Your task to perform on an android device: turn off improve location accuracy Image 0: 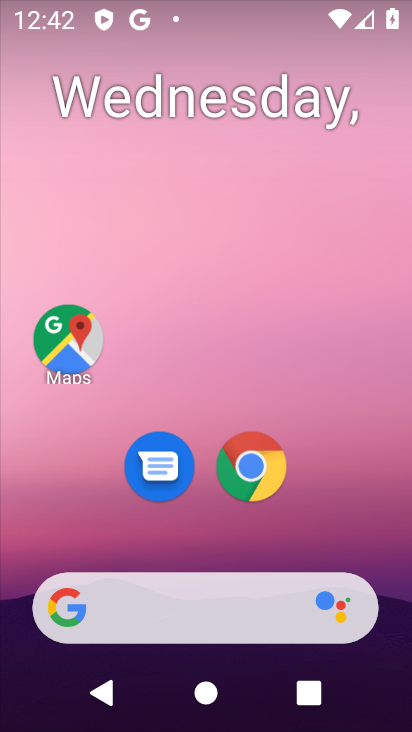
Step 0: drag from (333, 495) to (292, 121)
Your task to perform on an android device: turn off improve location accuracy Image 1: 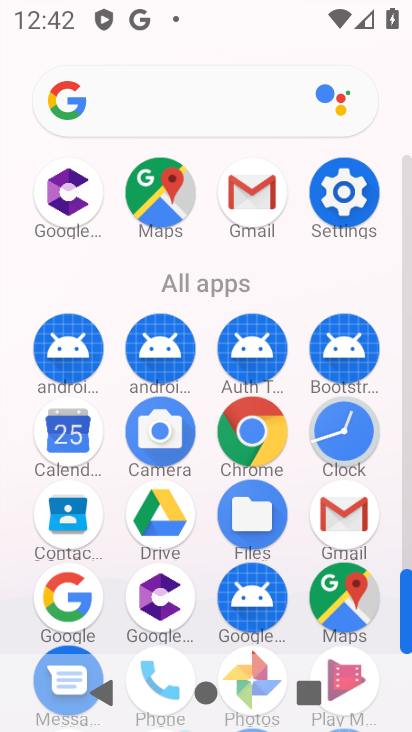
Step 1: click (370, 187)
Your task to perform on an android device: turn off improve location accuracy Image 2: 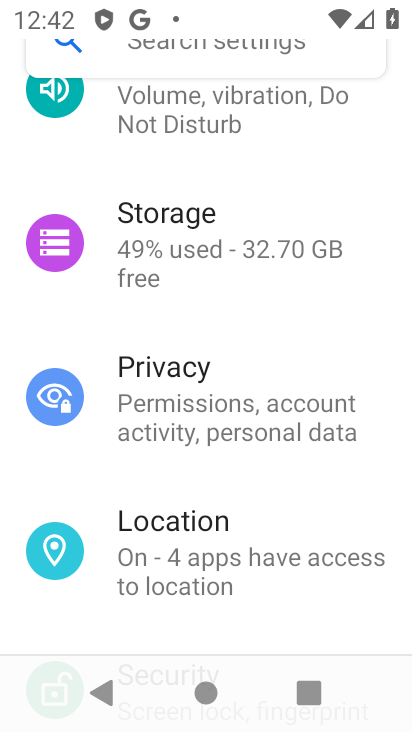
Step 2: drag from (224, 210) to (250, 478)
Your task to perform on an android device: turn off improve location accuracy Image 3: 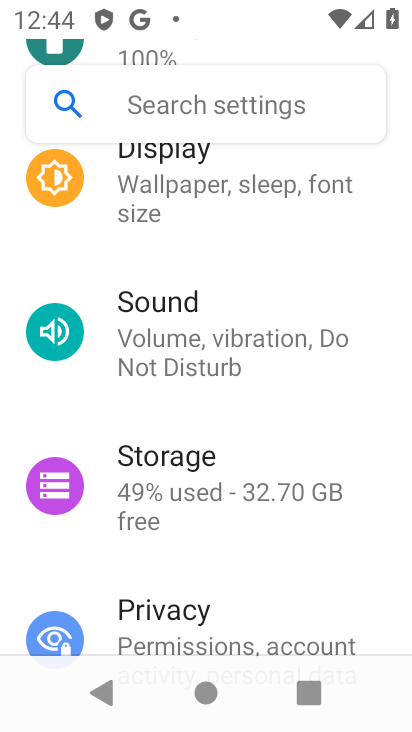
Step 3: drag from (207, 576) to (191, 220)
Your task to perform on an android device: turn off improve location accuracy Image 4: 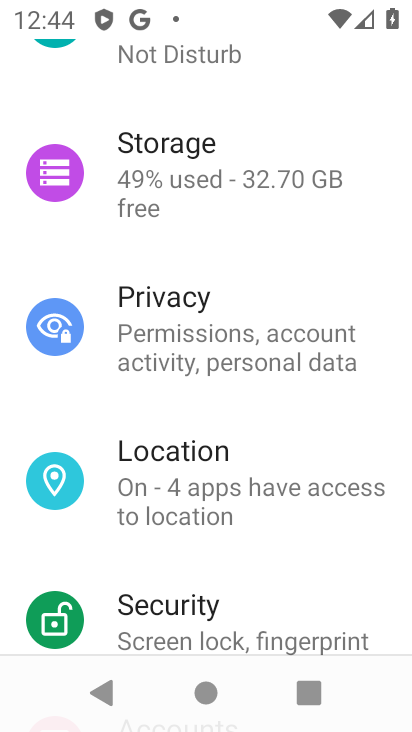
Step 4: click (209, 460)
Your task to perform on an android device: turn off improve location accuracy Image 5: 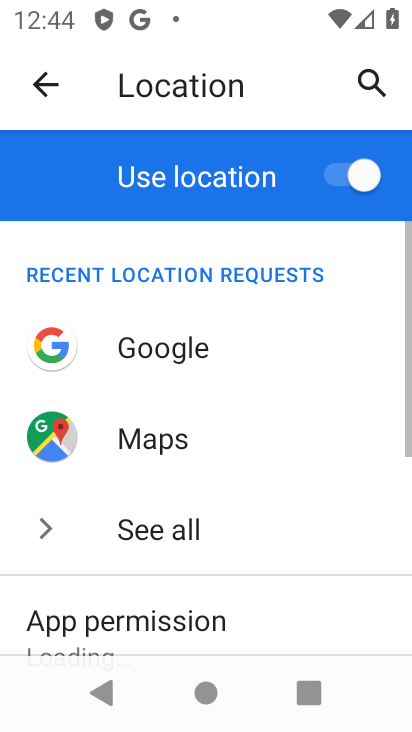
Step 5: drag from (237, 584) to (213, 213)
Your task to perform on an android device: turn off improve location accuracy Image 6: 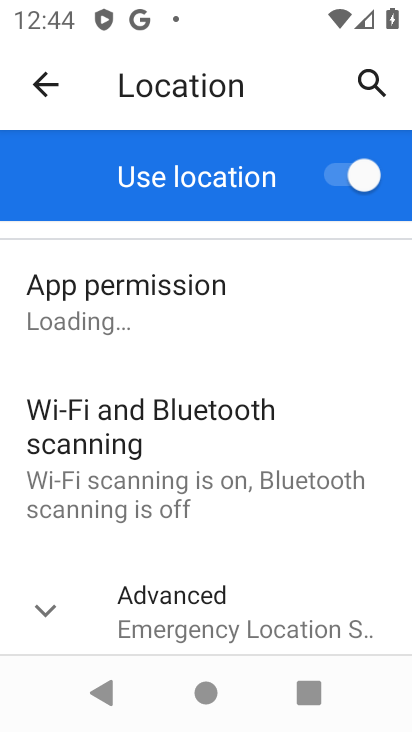
Step 6: click (195, 624)
Your task to perform on an android device: turn off improve location accuracy Image 7: 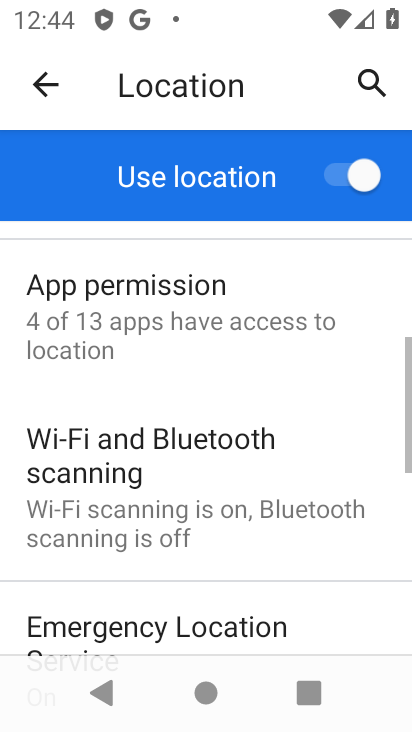
Step 7: drag from (202, 617) to (207, 223)
Your task to perform on an android device: turn off improve location accuracy Image 8: 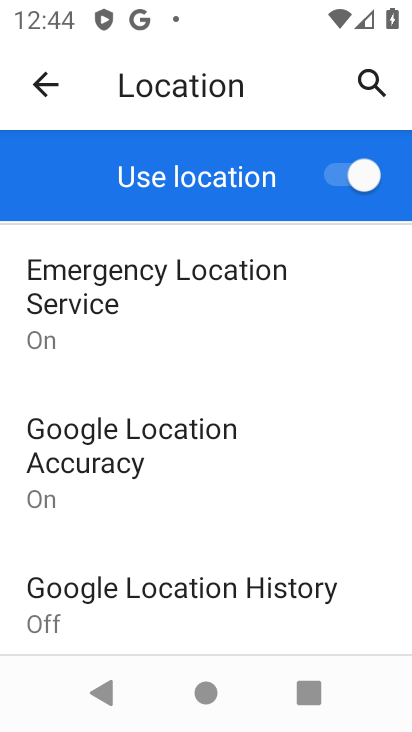
Step 8: click (216, 481)
Your task to perform on an android device: turn off improve location accuracy Image 9: 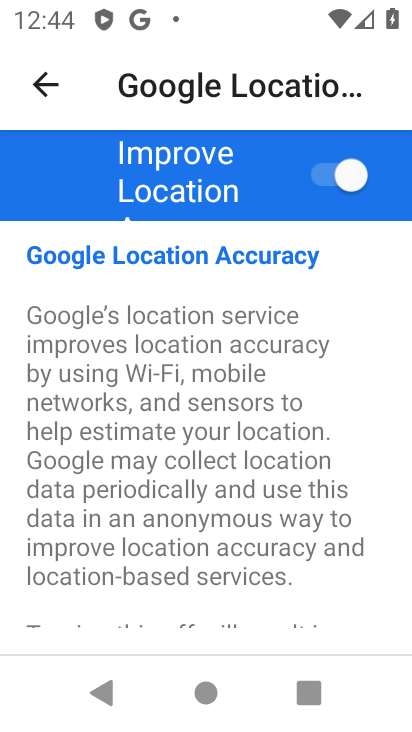
Step 9: click (350, 165)
Your task to perform on an android device: turn off improve location accuracy Image 10: 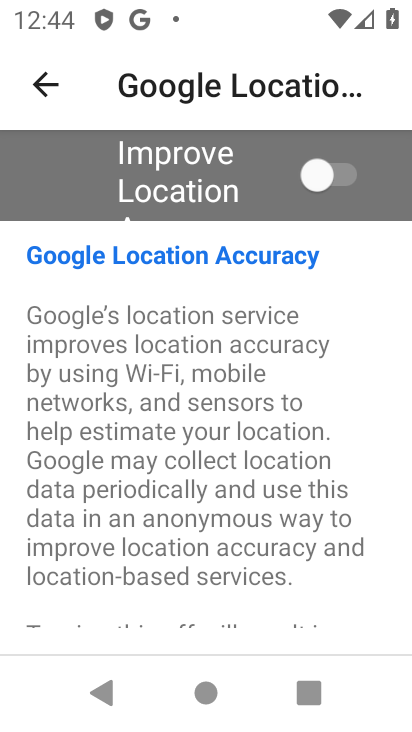
Step 10: task complete